Your task to perform on an android device: Open battery settings Image 0: 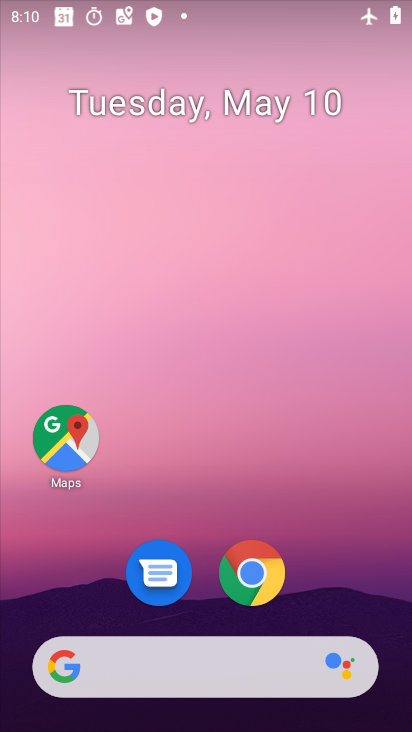
Step 0: drag from (371, 608) to (340, 119)
Your task to perform on an android device: Open battery settings Image 1: 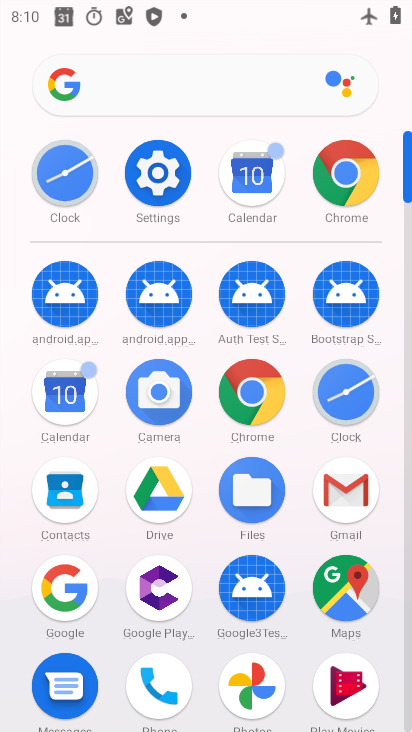
Step 1: click (153, 173)
Your task to perform on an android device: Open battery settings Image 2: 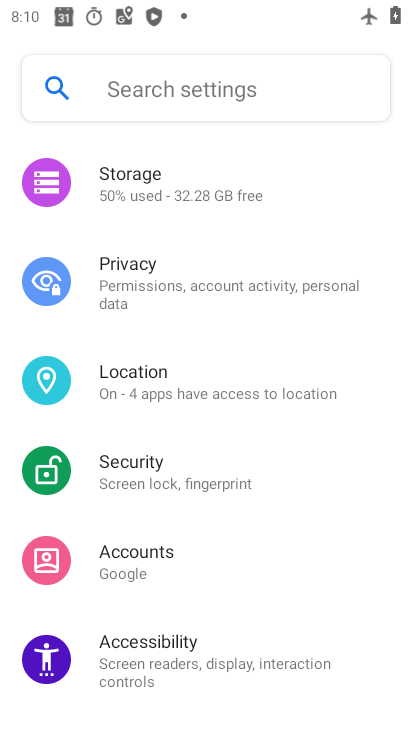
Step 2: drag from (302, 568) to (307, 286)
Your task to perform on an android device: Open battery settings Image 3: 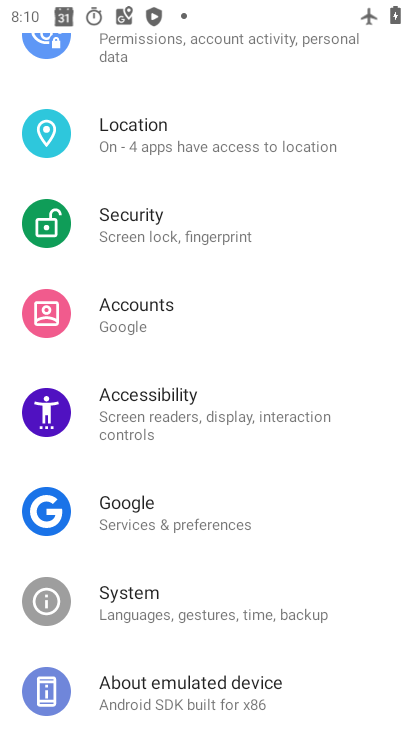
Step 3: drag from (303, 599) to (309, 249)
Your task to perform on an android device: Open battery settings Image 4: 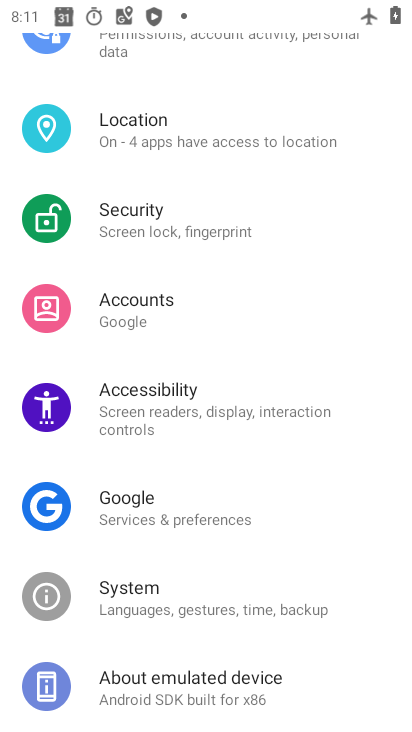
Step 4: drag from (298, 247) to (283, 612)
Your task to perform on an android device: Open battery settings Image 5: 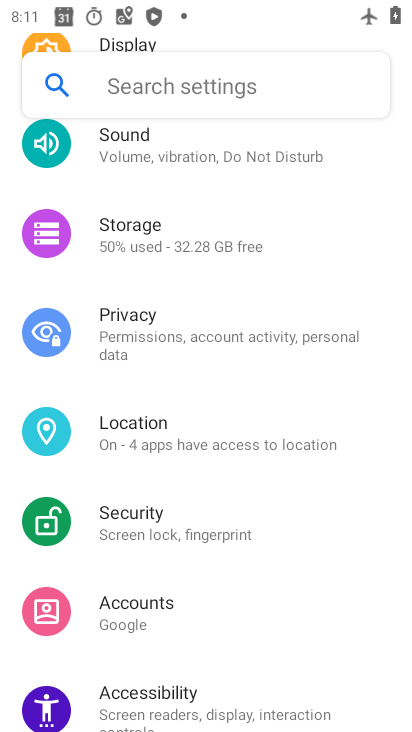
Step 5: drag from (294, 303) to (307, 703)
Your task to perform on an android device: Open battery settings Image 6: 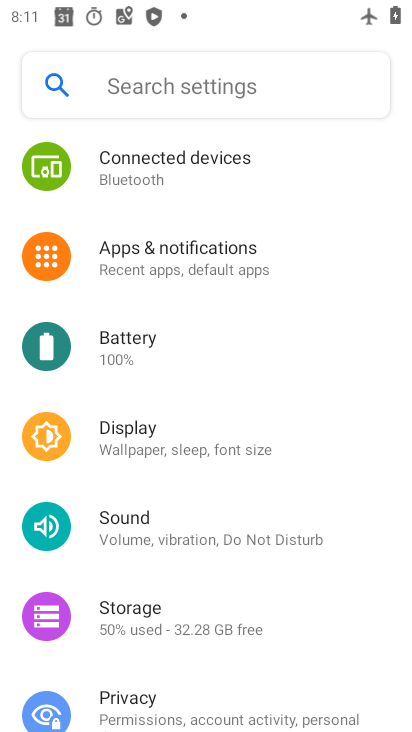
Step 6: click (143, 339)
Your task to perform on an android device: Open battery settings Image 7: 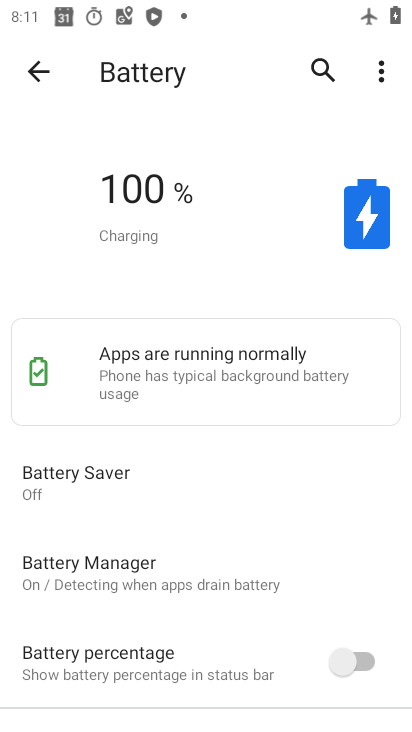
Step 7: task complete